Your task to perform on an android device: show emergency info Image 0: 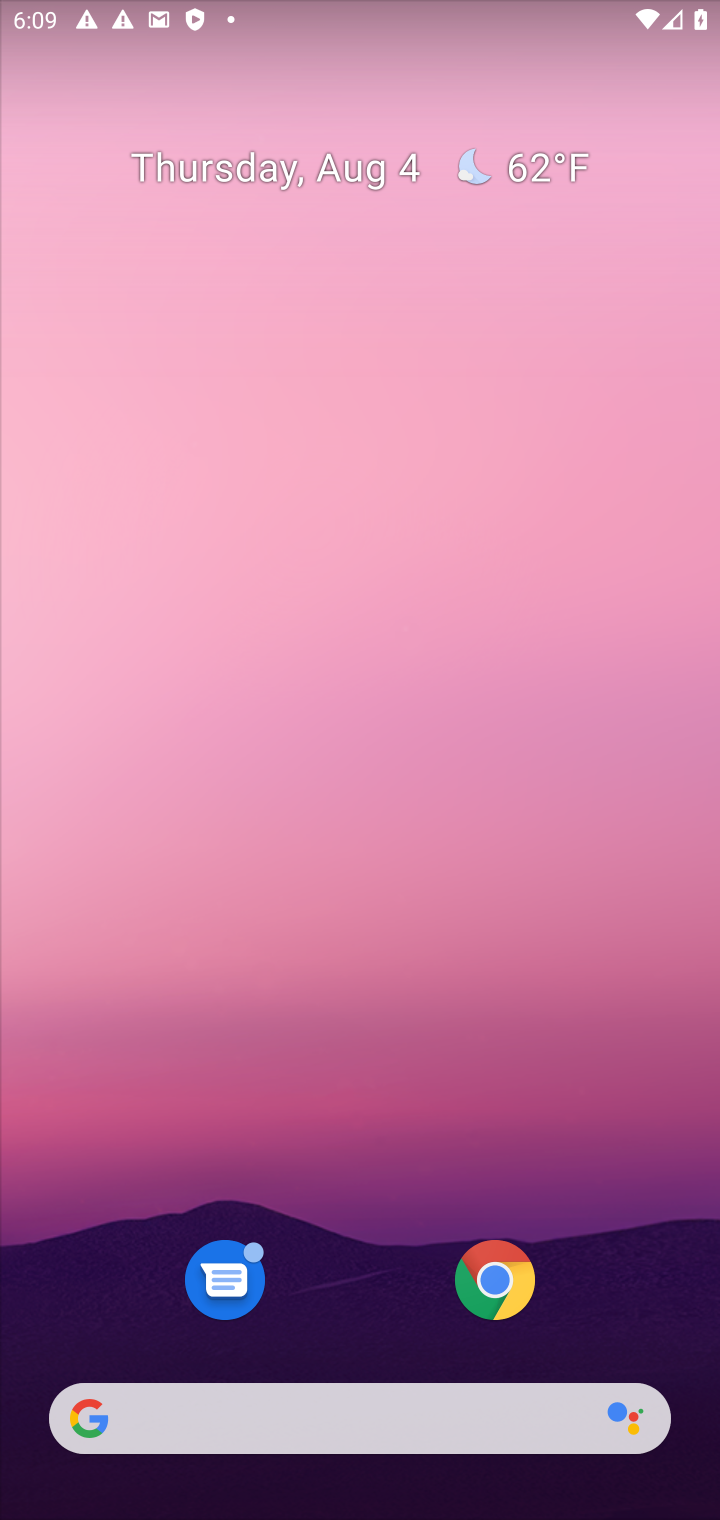
Step 0: drag from (369, 1310) to (268, 85)
Your task to perform on an android device: show emergency info Image 1: 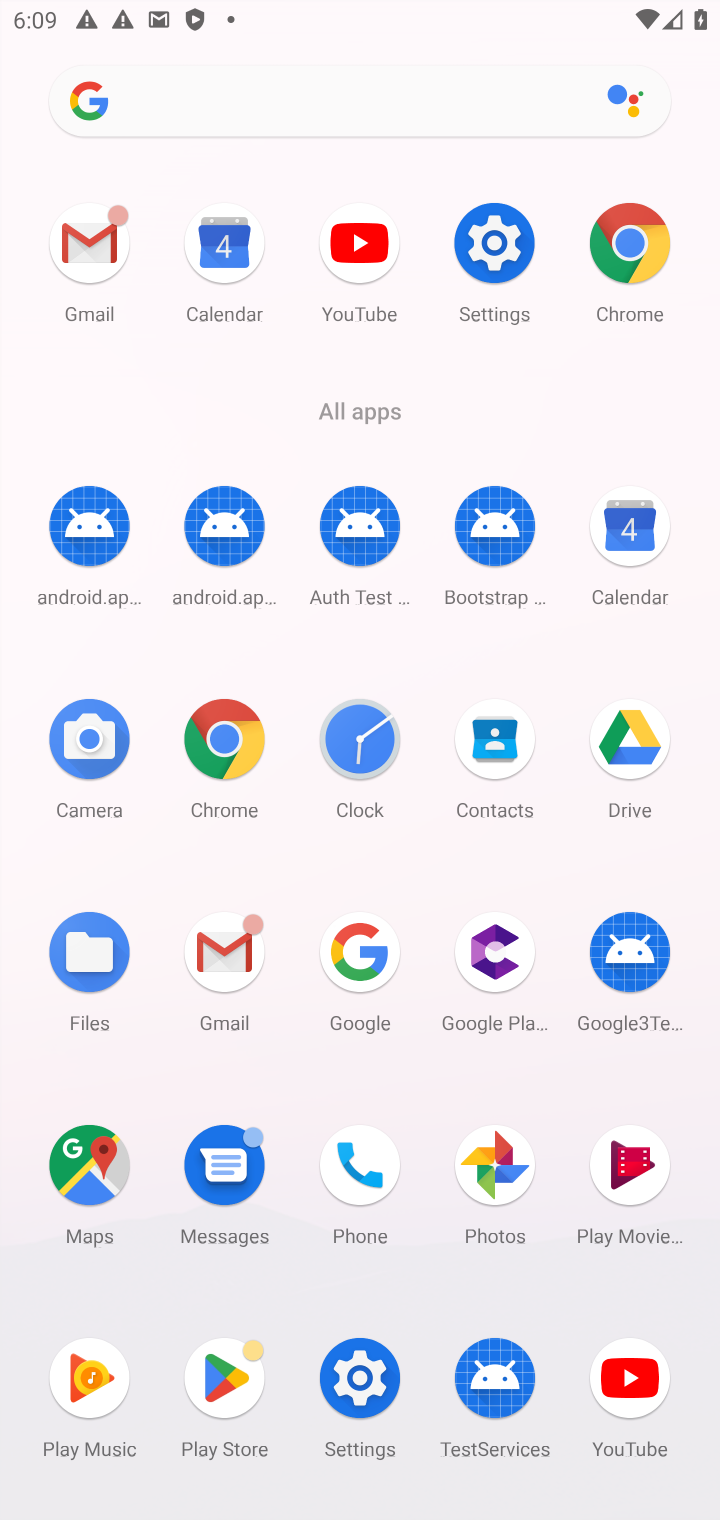
Step 1: click (492, 254)
Your task to perform on an android device: show emergency info Image 2: 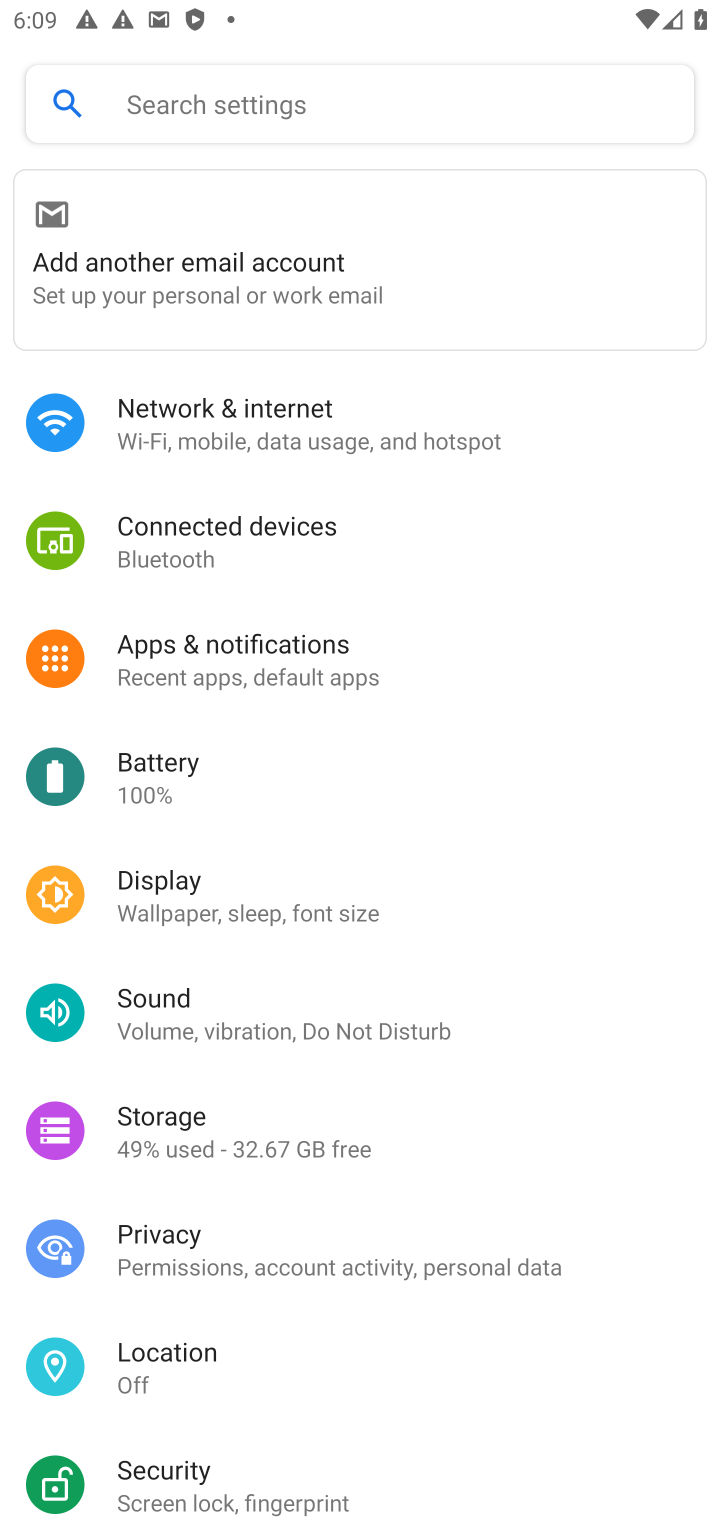
Step 2: click (270, 385)
Your task to perform on an android device: show emergency info Image 3: 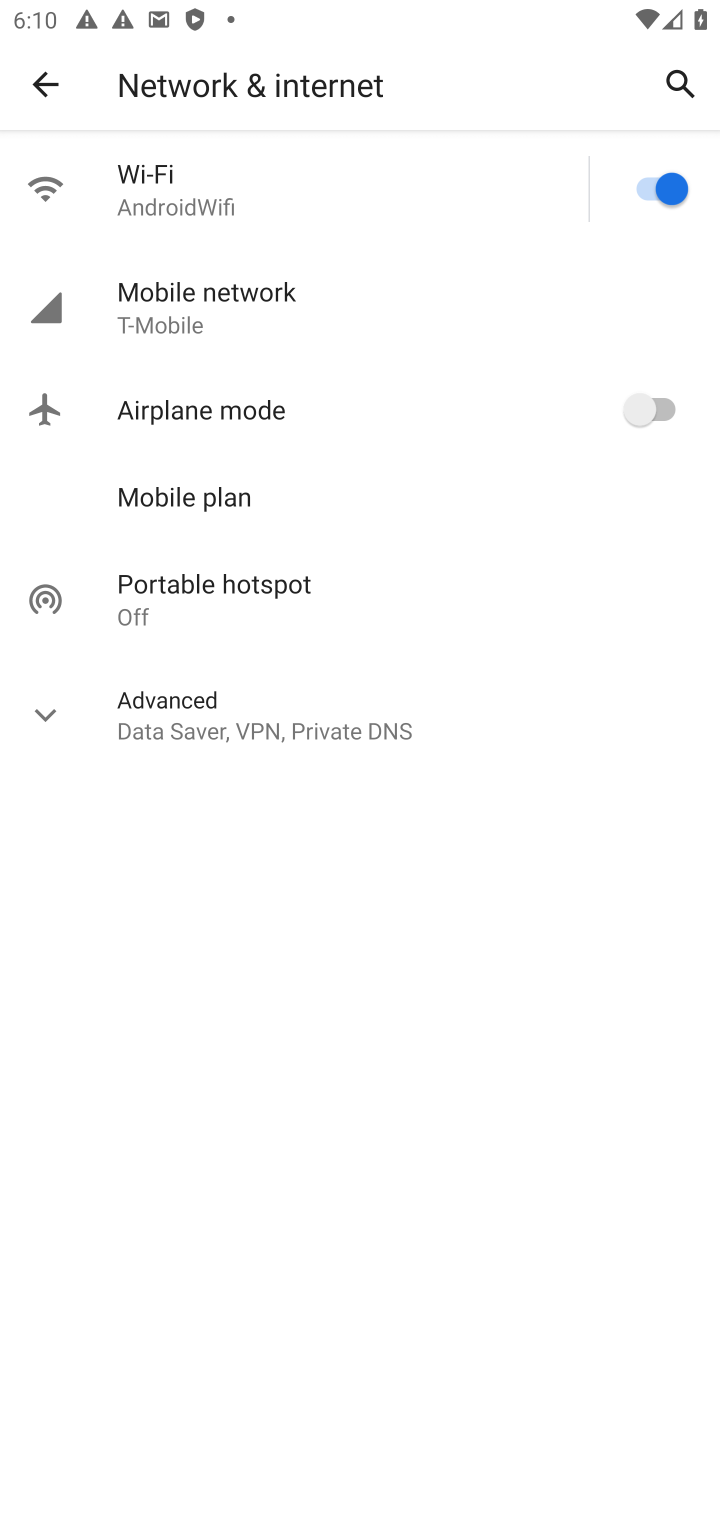
Step 3: click (39, 82)
Your task to perform on an android device: show emergency info Image 4: 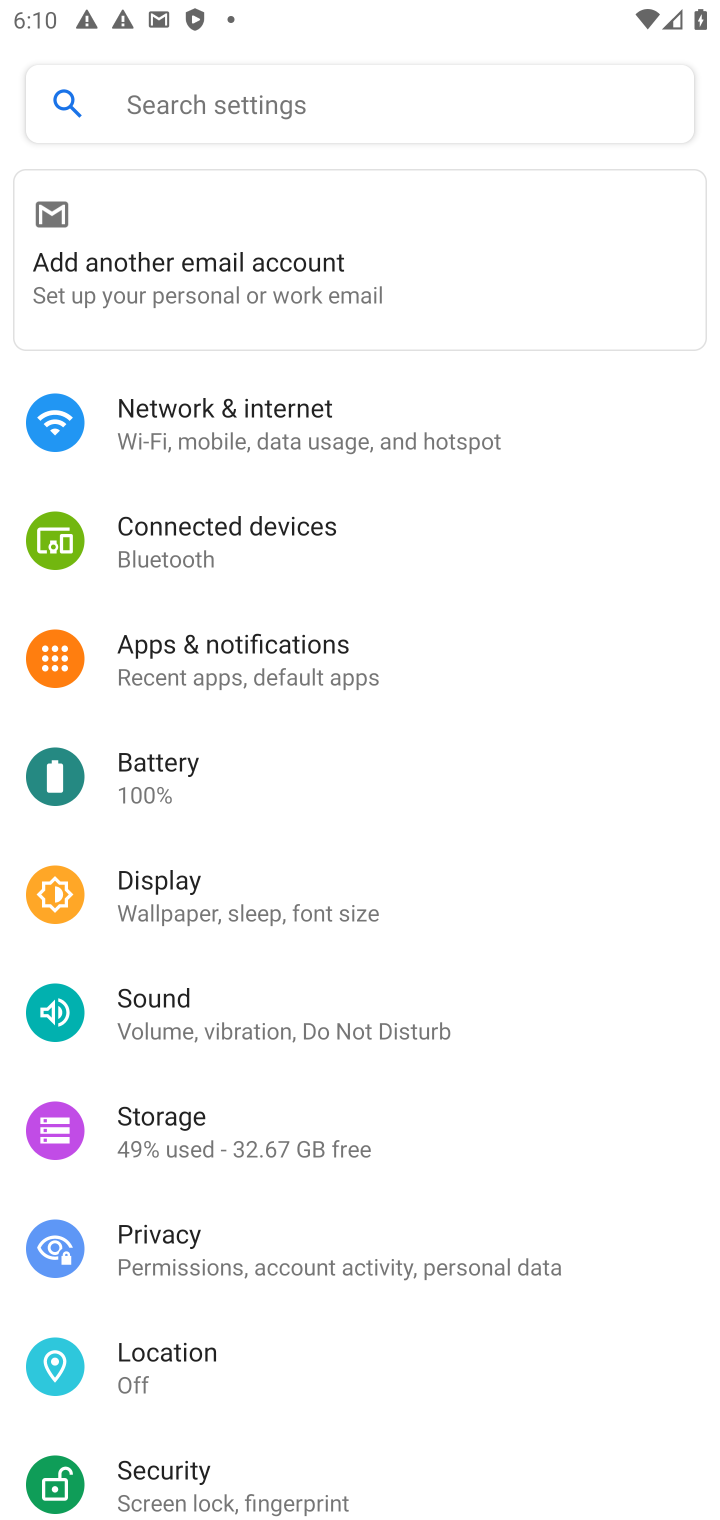
Step 4: click (57, 93)
Your task to perform on an android device: show emergency info Image 5: 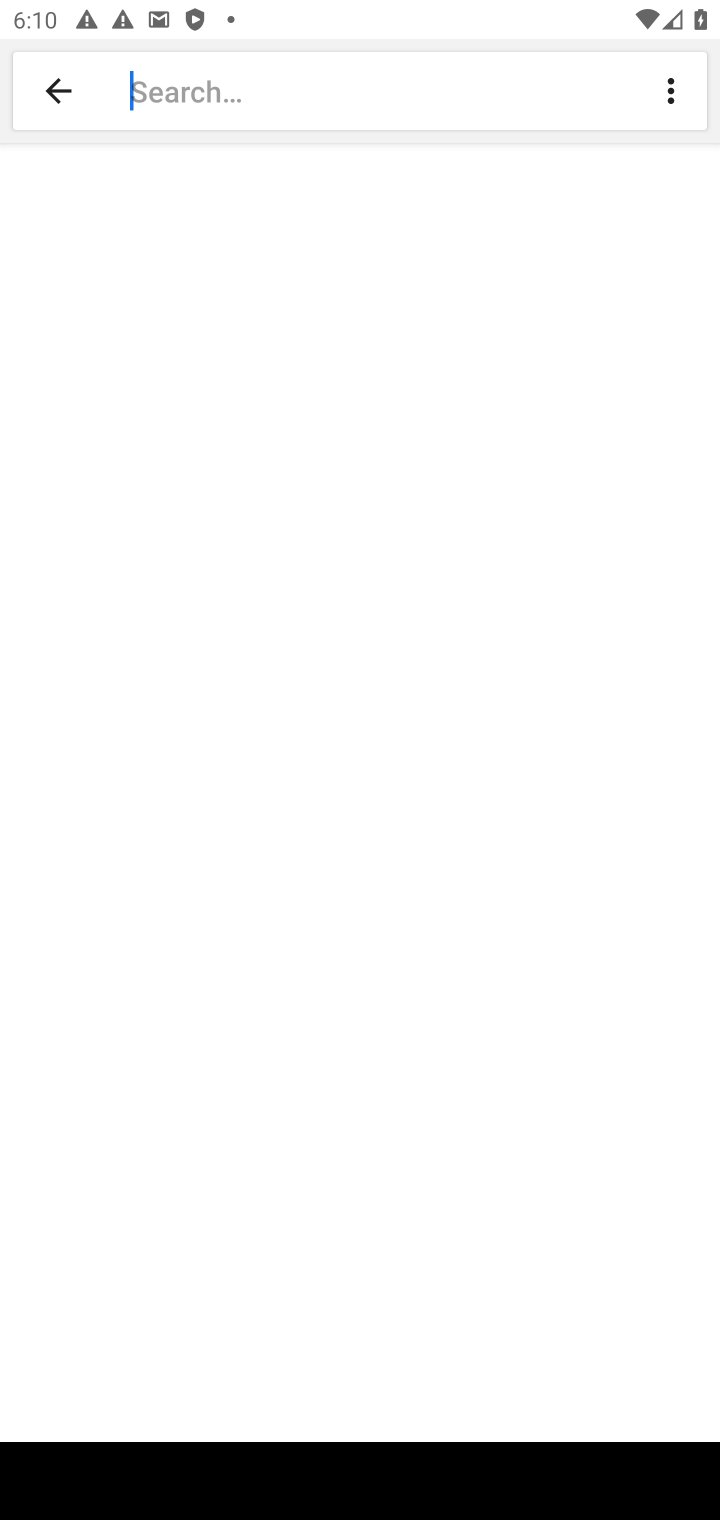
Step 5: press back button
Your task to perform on an android device: show emergency info Image 6: 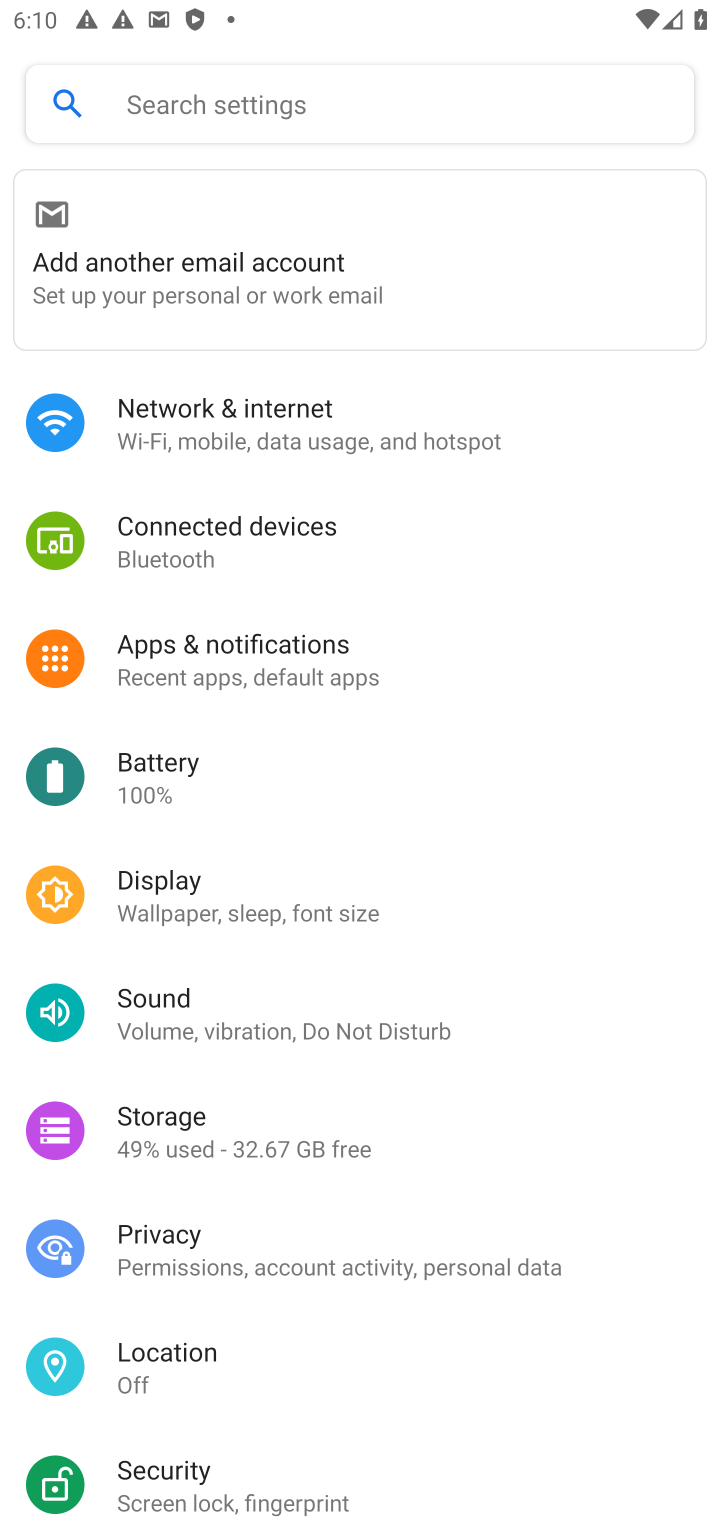
Step 6: click (228, 368)
Your task to perform on an android device: show emergency info Image 7: 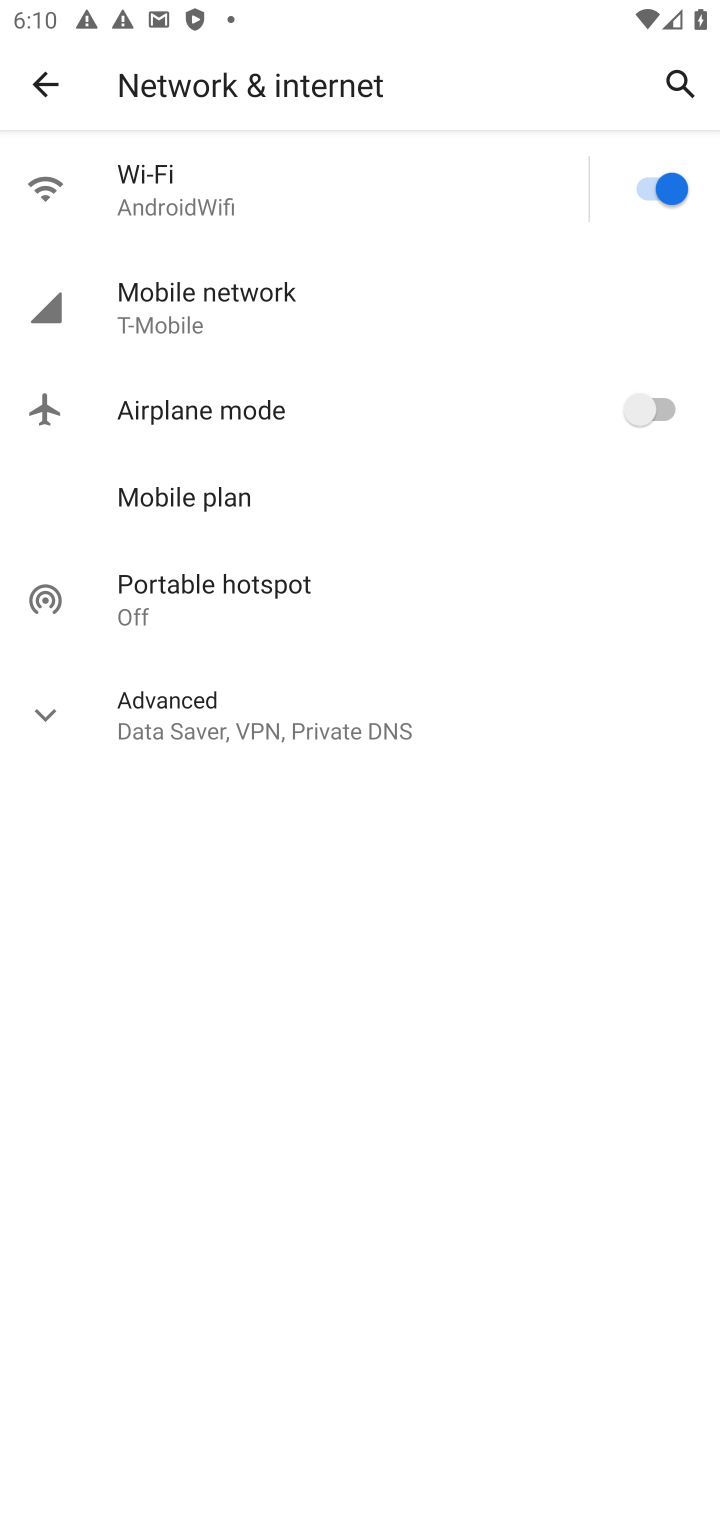
Step 7: drag from (255, 1338) to (255, 725)
Your task to perform on an android device: show emergency info Image 8: 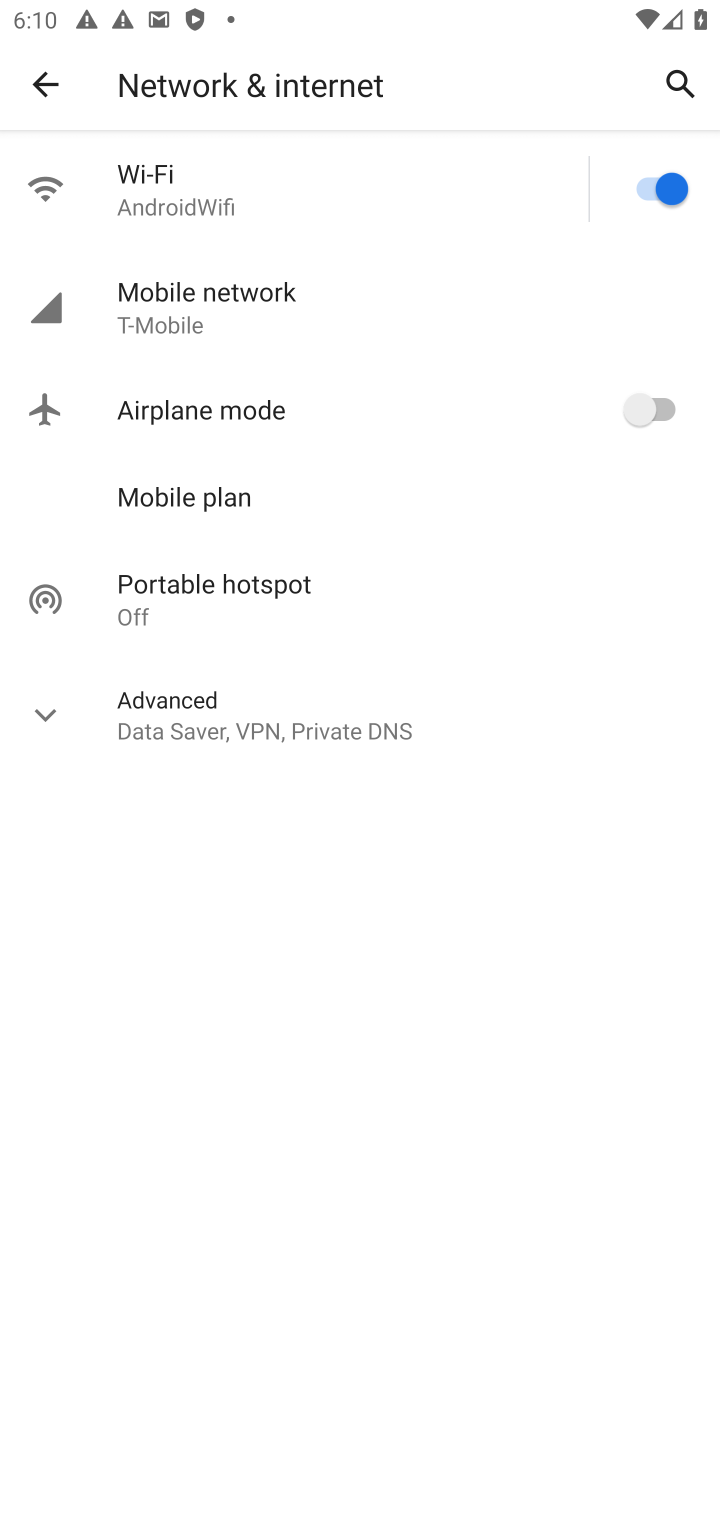
Step 8: press back button
Your task to perform on an android device: show emergency info Image 9: 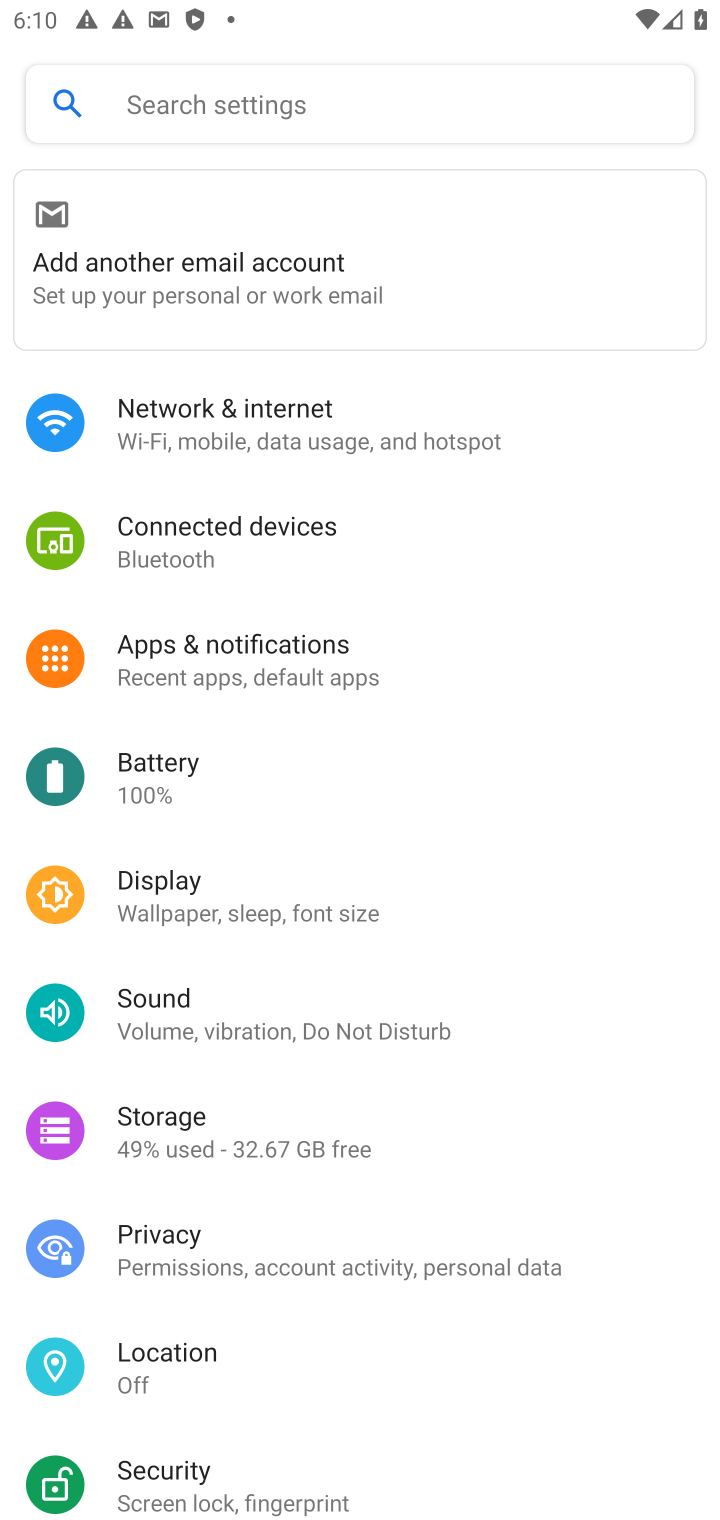
Step 9: drag from (324, 1062) to (341, 300)
Your task to perform on an android device: show emergency info Image 10: 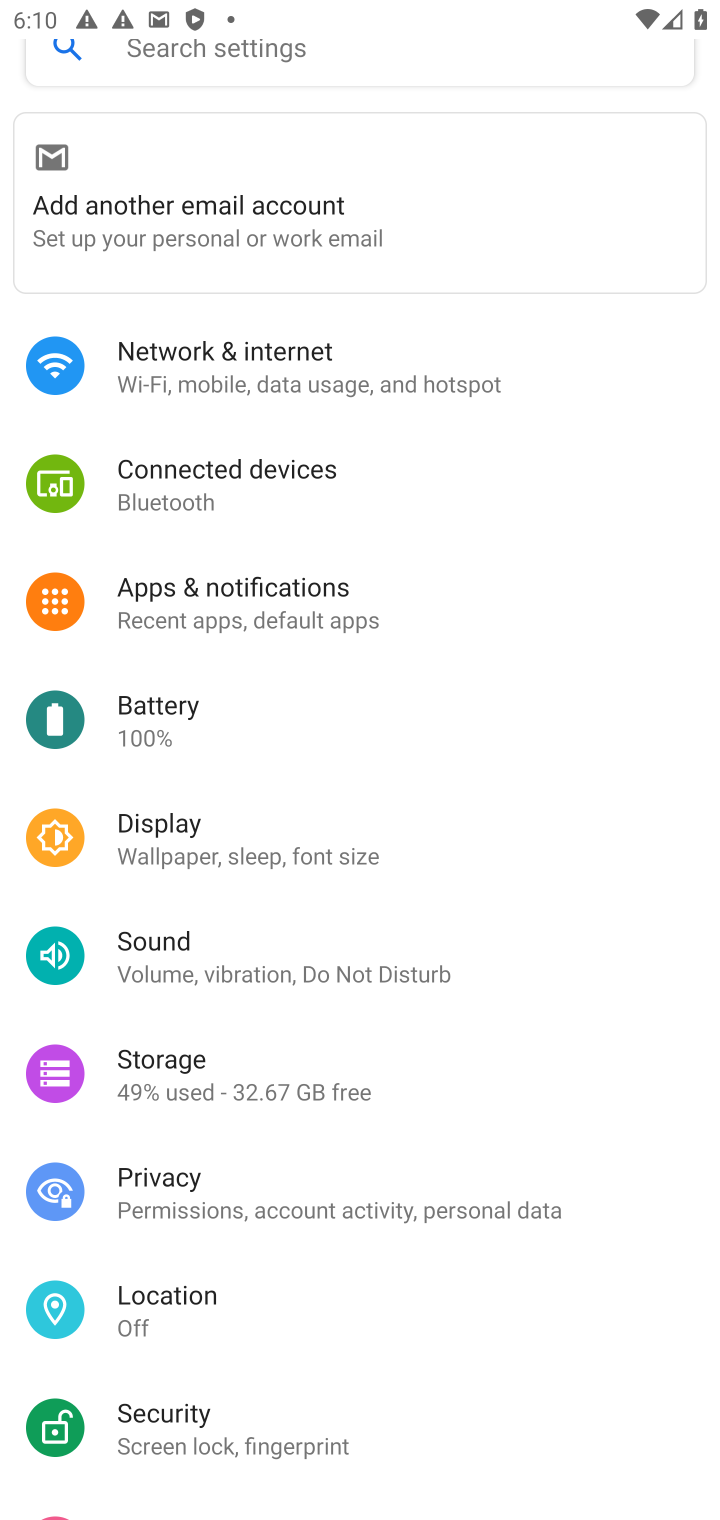
Step 10: drag from (465, 985) to (428, 468)
Your task to perform on an android device: show emergency info Image 11: 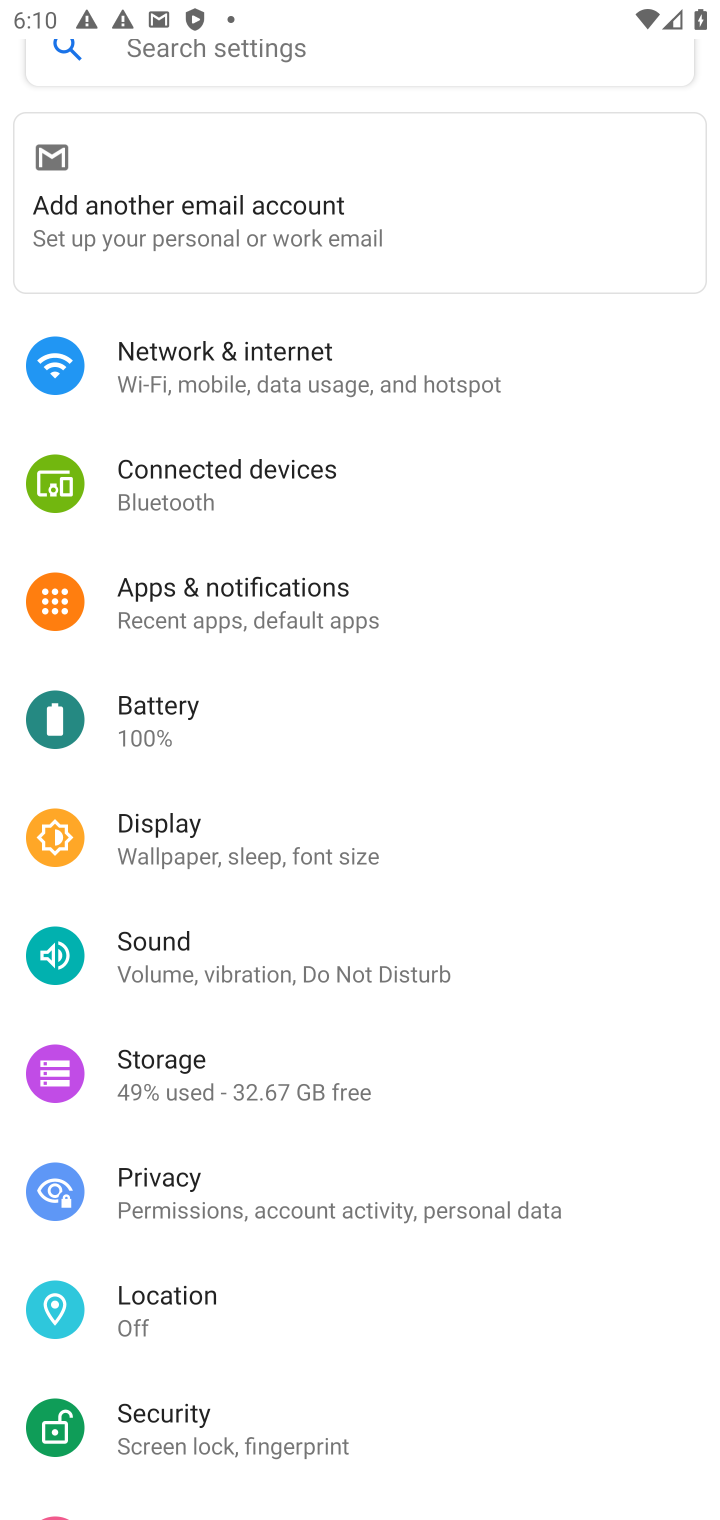
Step 11: drag from (271, 1327) to (321, 722)
Your task to perform on an android device: show emergency info Image 12: 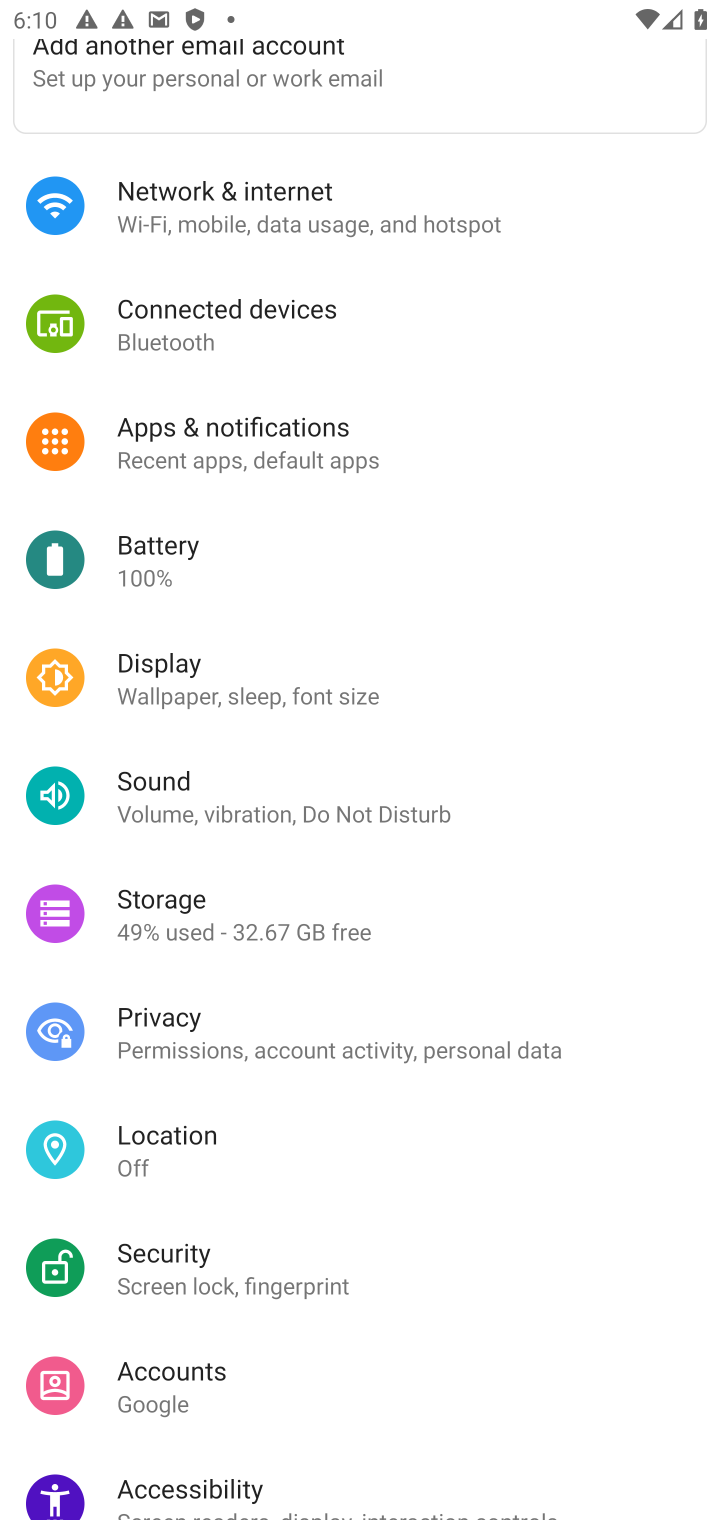
Step 12: drag from (256, 1295) to (254, 681)
Your task to perform on an android device: show emergency info Image 13: 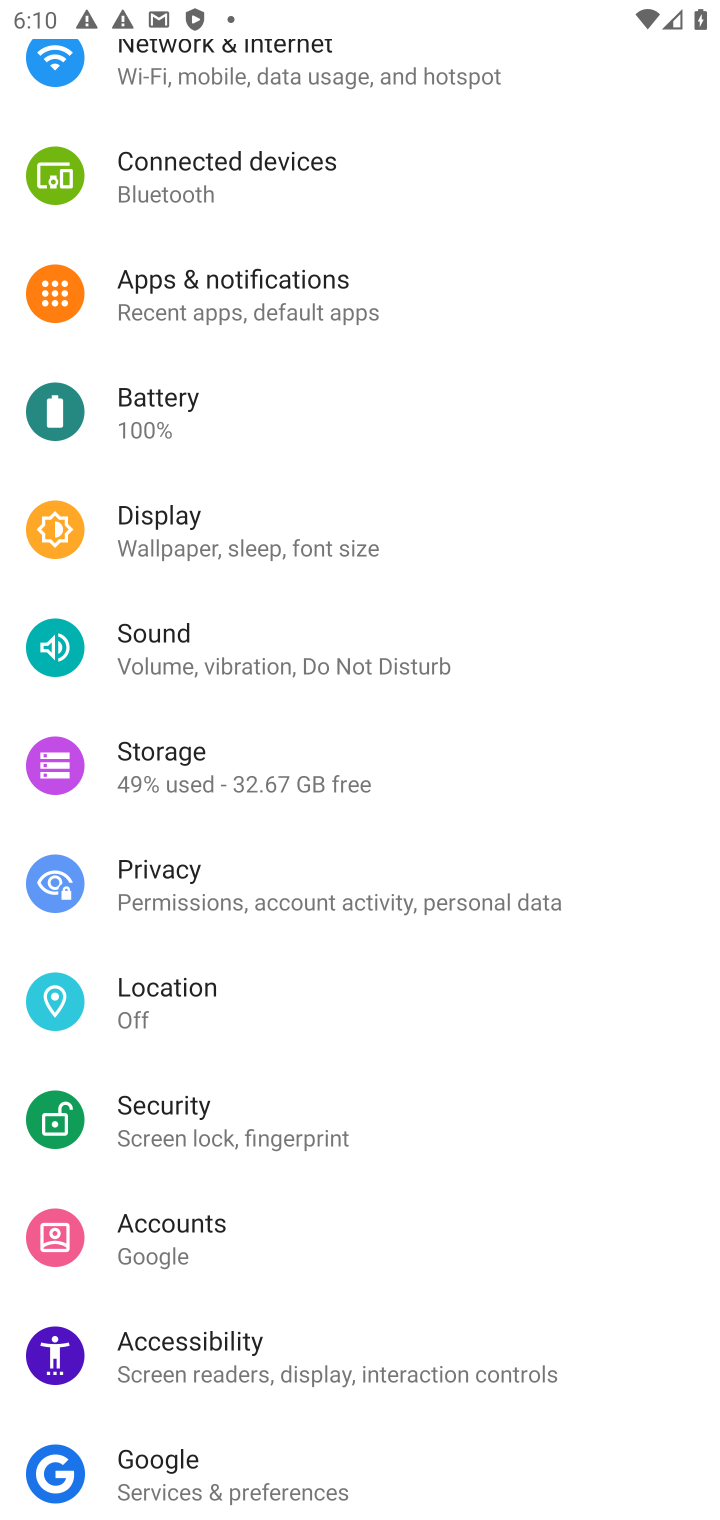
Step 13: drag from (305, 1303) to (307, 682)
Your task to perform on an android device: show emergency info Image 14: 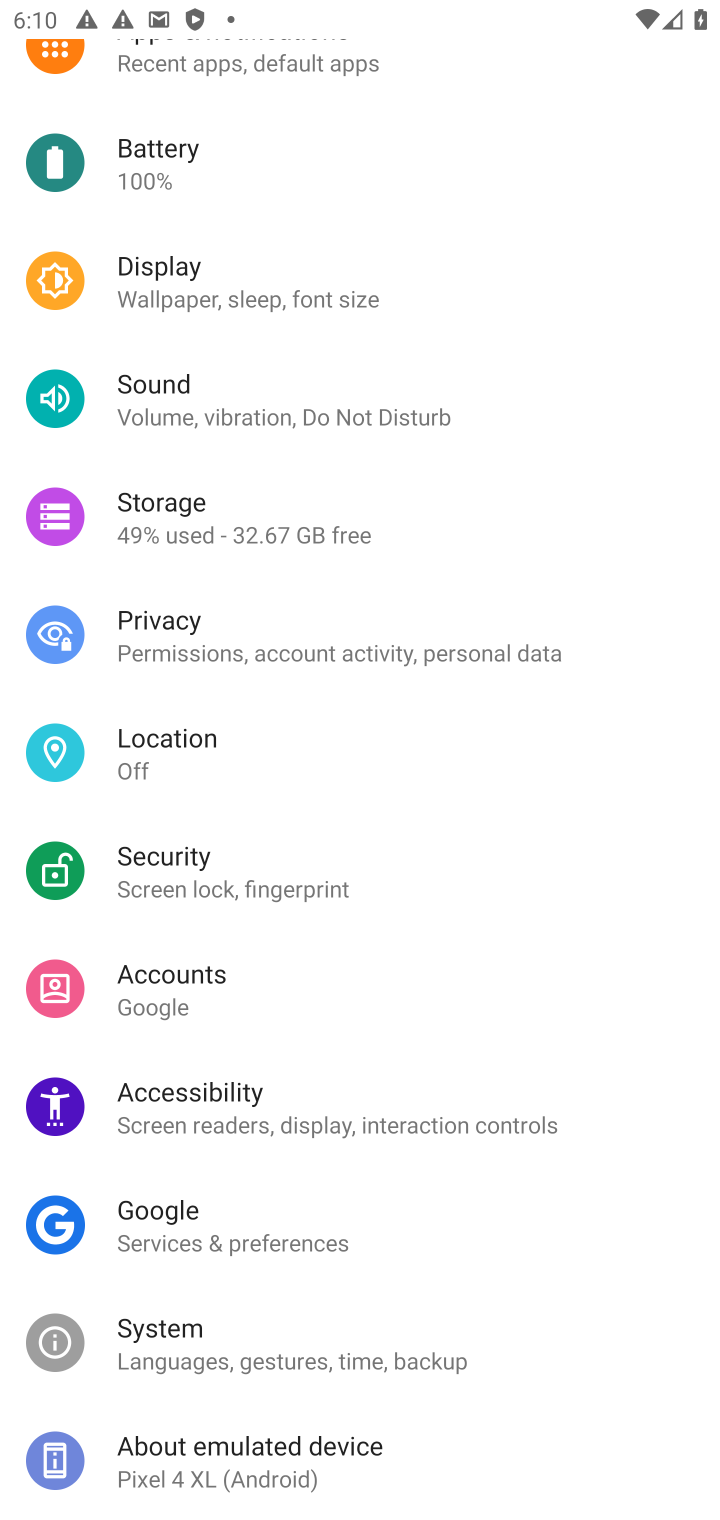
Step 14: drag from (371, 1073) to (371, 436)
Your task to perform on an android device: show emergency info Image 15: 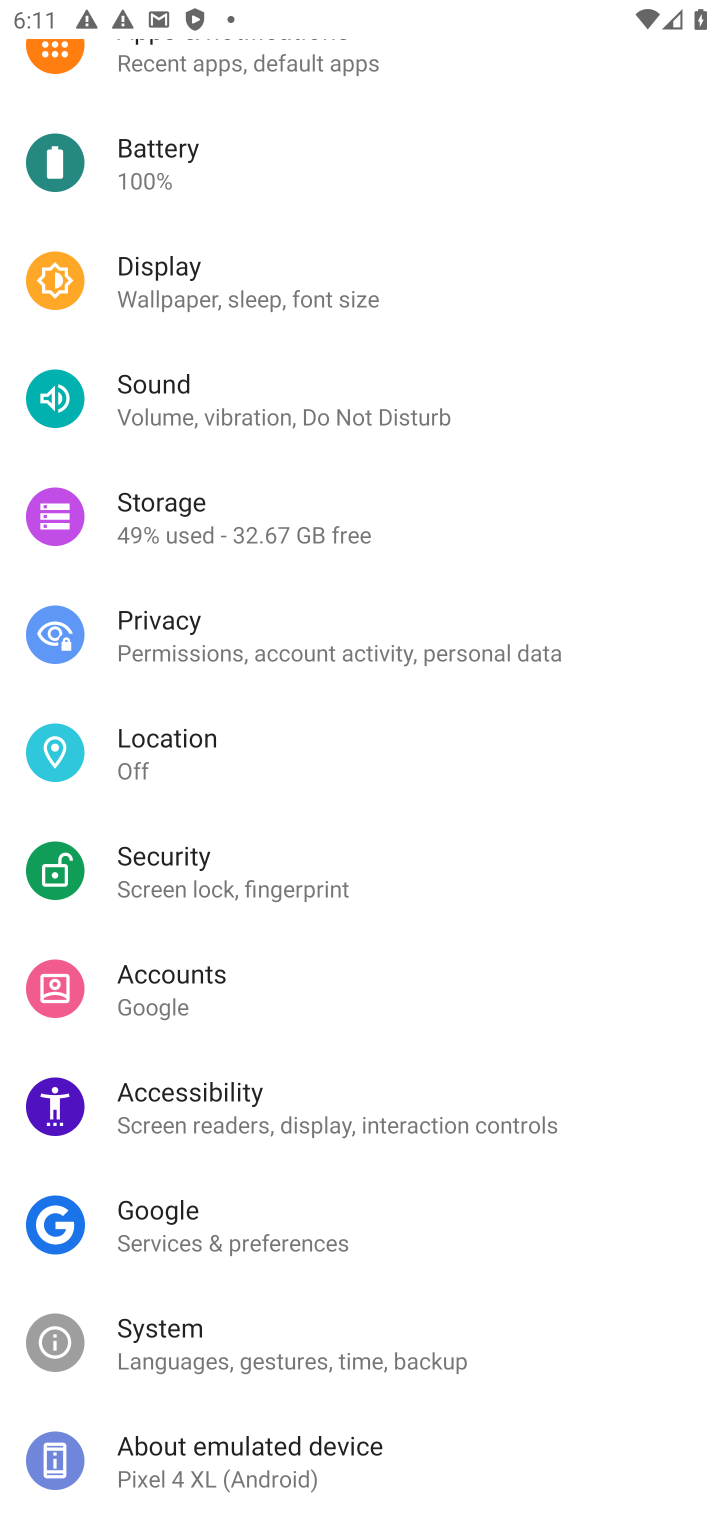
Step 15: click (243, 1445)
Your task to perform on an android device: show emergency info Image 16: 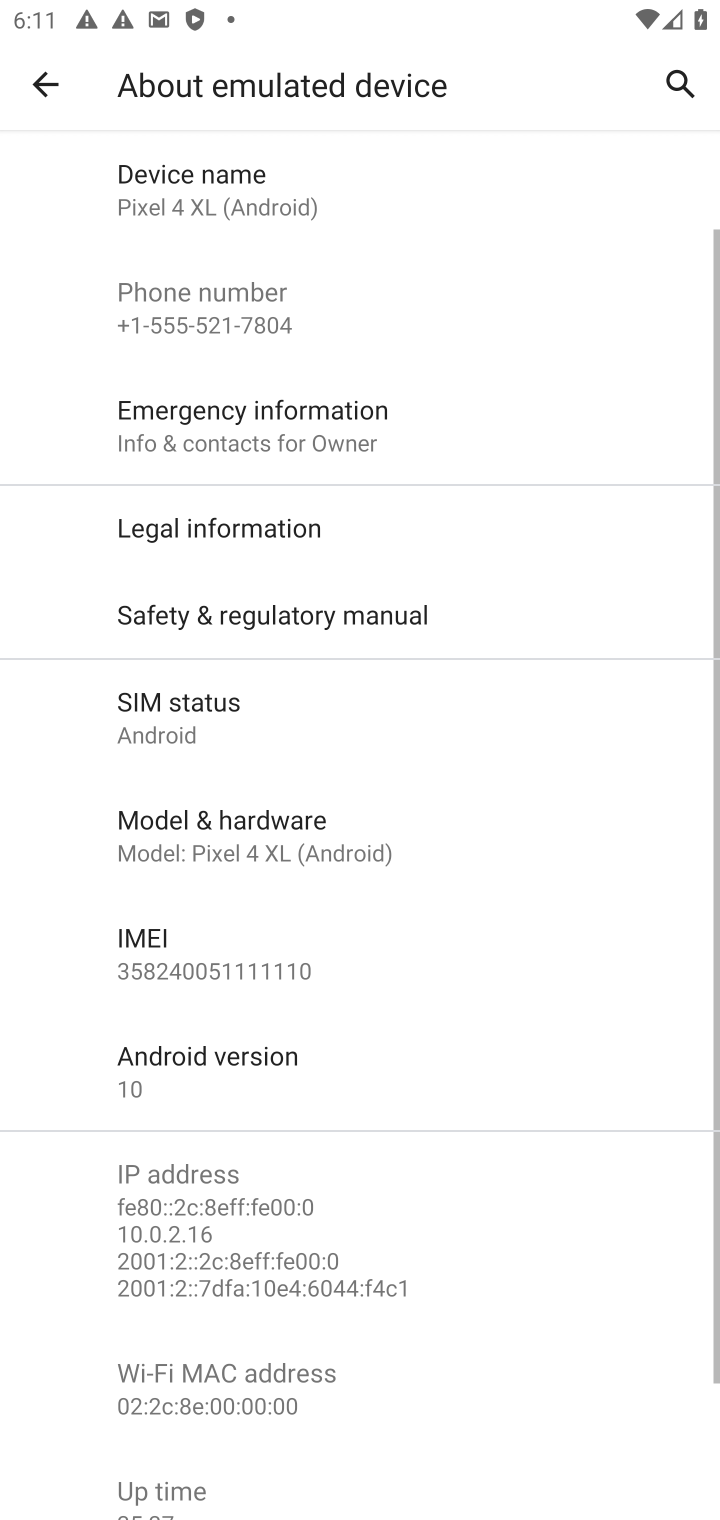
Step 16: click (243, 1445)
Your task to perform on an android device: show emergency info Image 17: 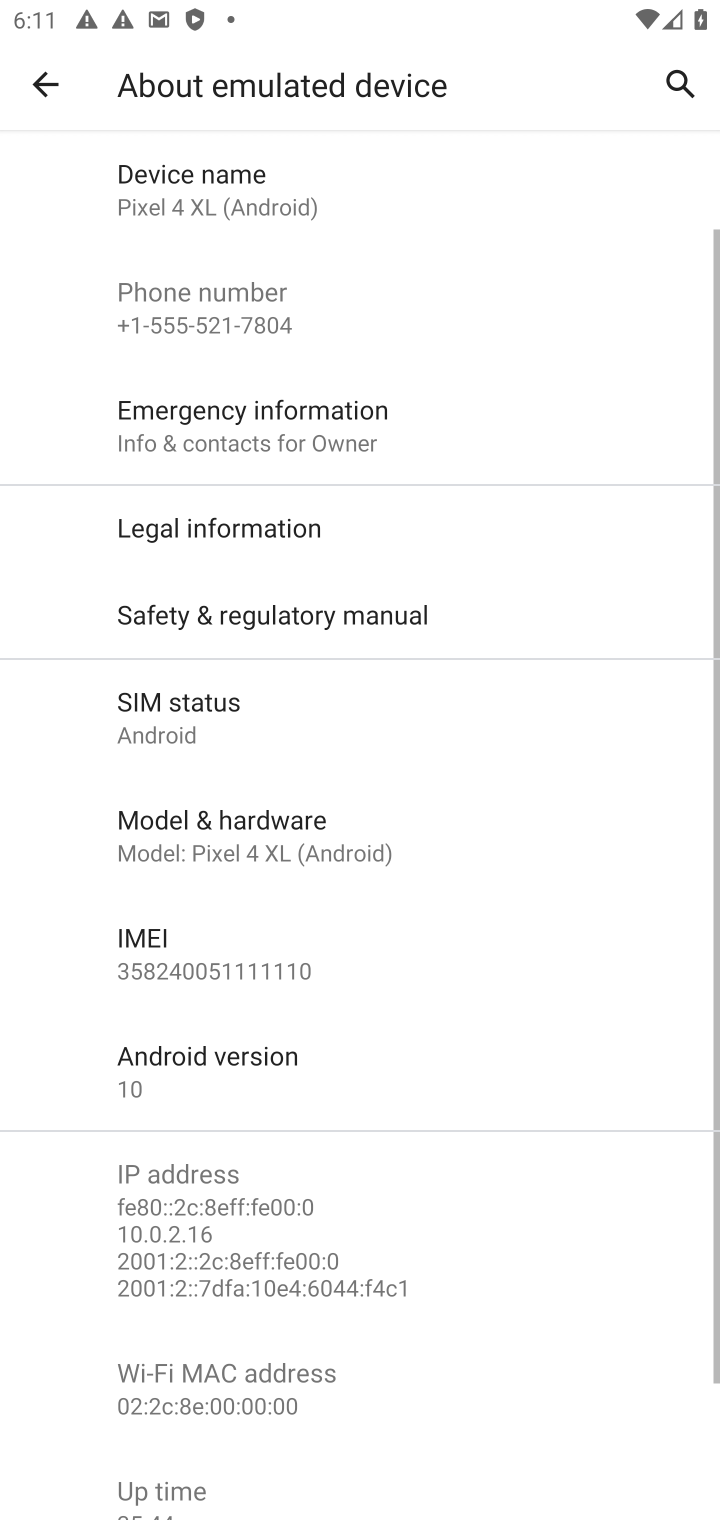
Step 17: click (233, 433)
Your task to perform on an android device: show emergency info Image 18: 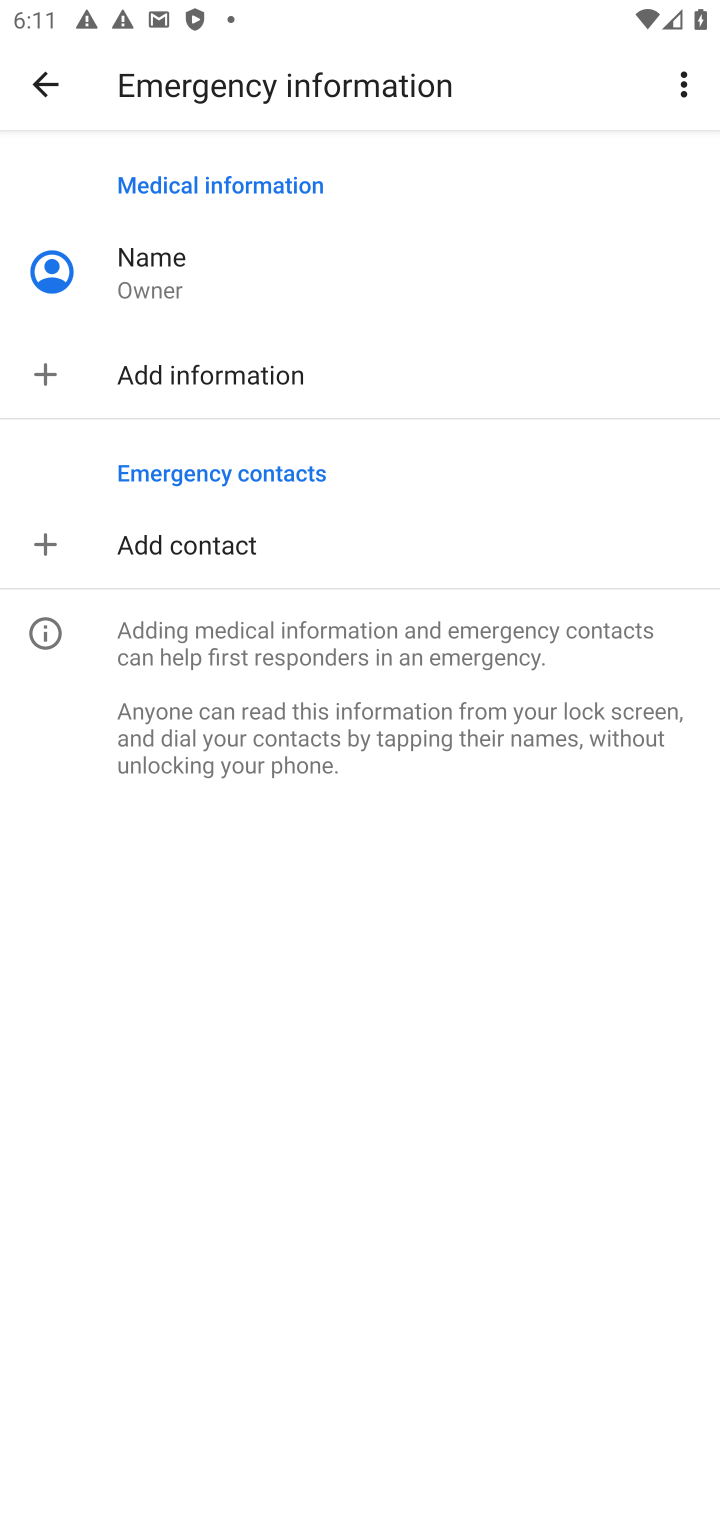
Step 18: task complete